Your task to perform on an android device: open the mobile data screen to see how much data has been used Image 0: 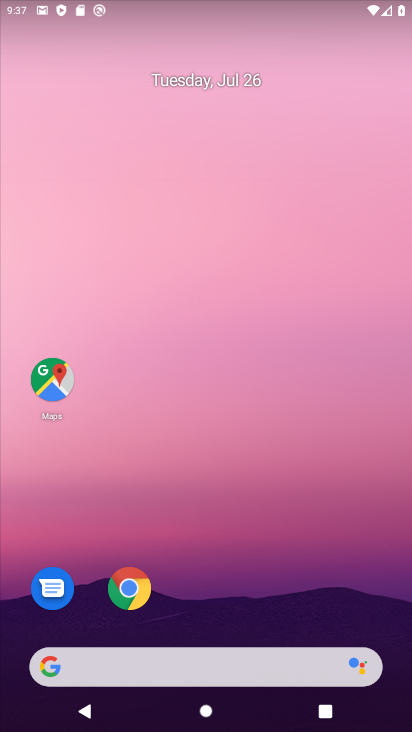
Step 0: drag from (273, 632) to (320, 125)
Your task to perform on an android device: open the mobile data screen to see how much data has been used Image 1: 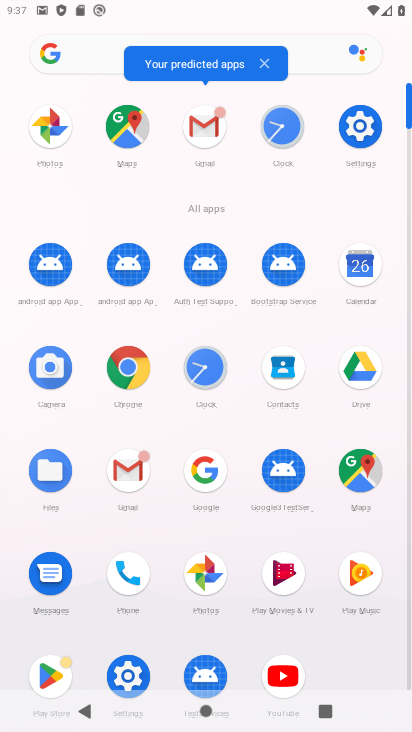
Step 1: click (350, 126)
Your task to perform on an android device: open the mobile data screen to see how much data has been used Image 2: 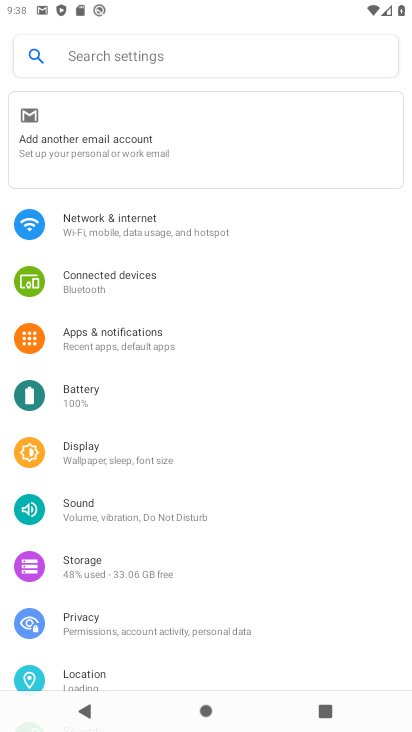
Step 2: click (180, 222)
Your task to perform on an android device: open the mobile data screen to see how much data has been used Image 3: 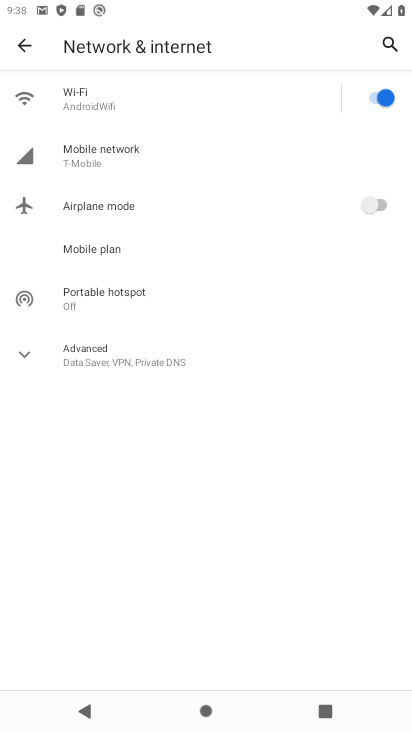
Step 3: click (156, 147)
Your task to perform on an android device: open the mobile data screen to see how much data has been used Image 4: 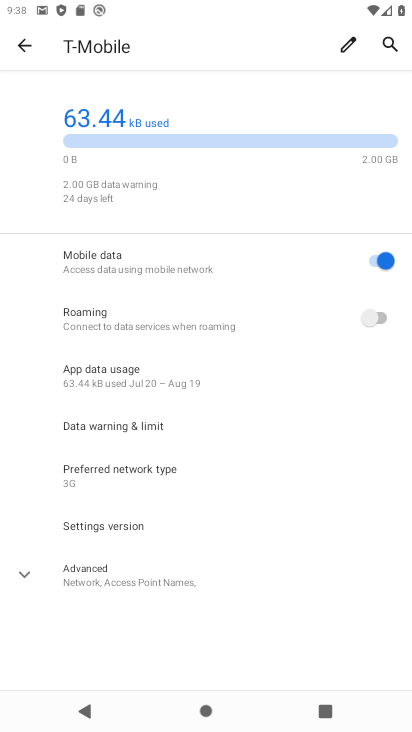
Step 4: task complete